Your task to perform on an android device: snooze an email in the gmail app Image 0: 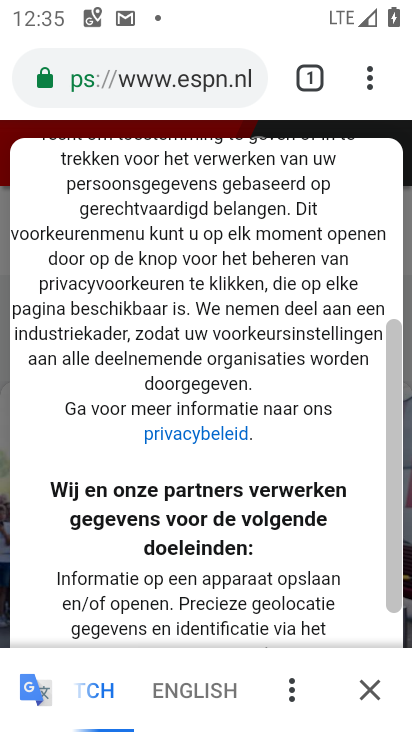
Step 0: press home button
Your task to perform on an android device: snooze an email in the gmail app Image 1: 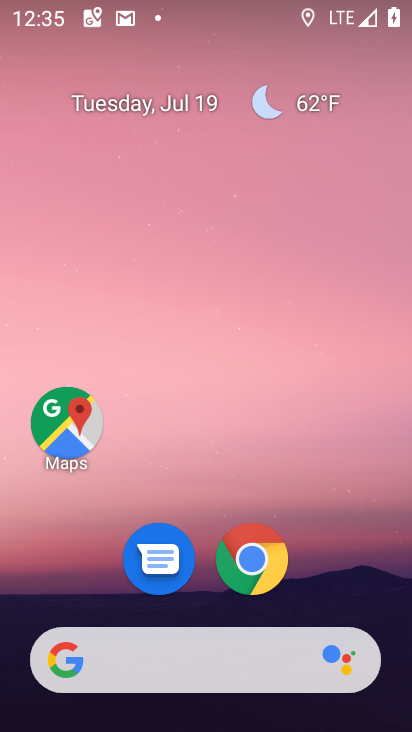
Step 1: drag from (299, 659) to (315, 102)
Your task to perform on an android device: snooze an email in the gmail app Image 2: 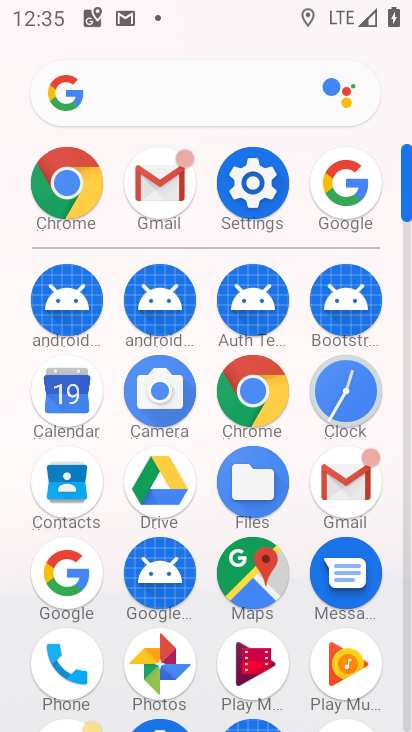
Step 2: click (352, 491)
Your task to perform on an android device: snooze an email in the gmail app Image 3: 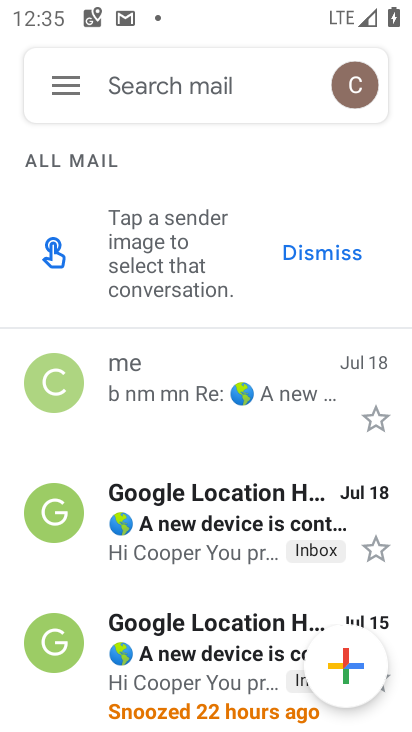
Step 3: drag from (176, 590) to (231, 341)
Your task to perform on an android device: snooze an email in the gmail app Image 4: 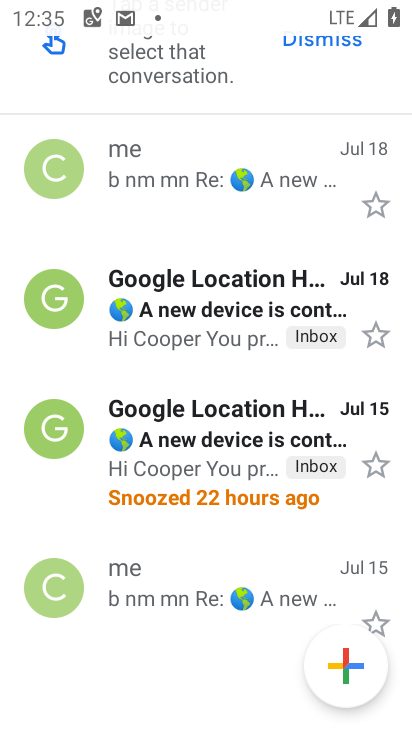
Step 4: drag from (92, 197) to (124, 622)
Your task to perform on an android device: snooze an email in the gmail app Image 5: 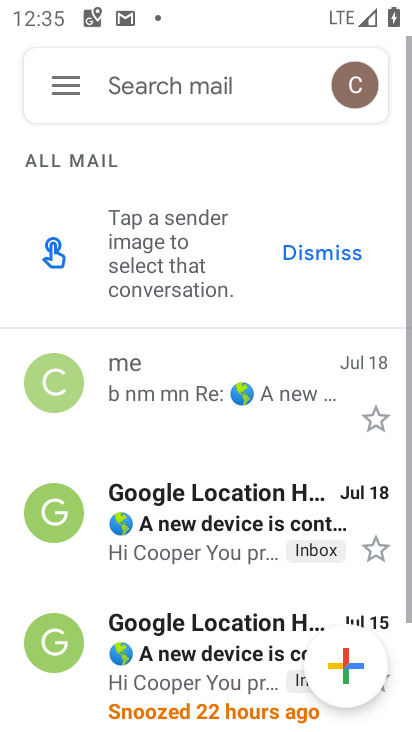
Step 5: click (59, 91)
Your task to perform on an android device: snooze an email in the gmail app Image 6: 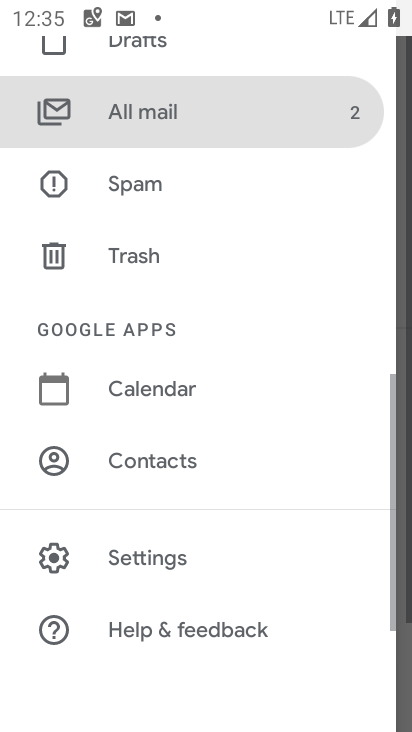
Step 6: drag from (135, 179) to (102, 721)
Your task to perform on an android device: snooze an email in the gmail app Image 7: 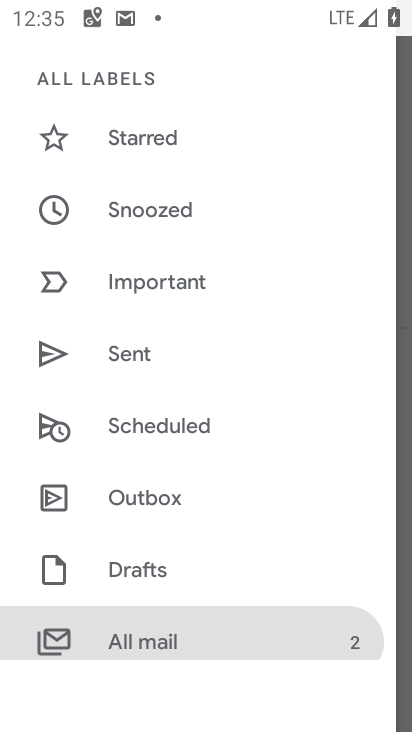
Step 7: click (156, 221)
Your task to perform on an android device: snooze an email in the gmail app Image 8: 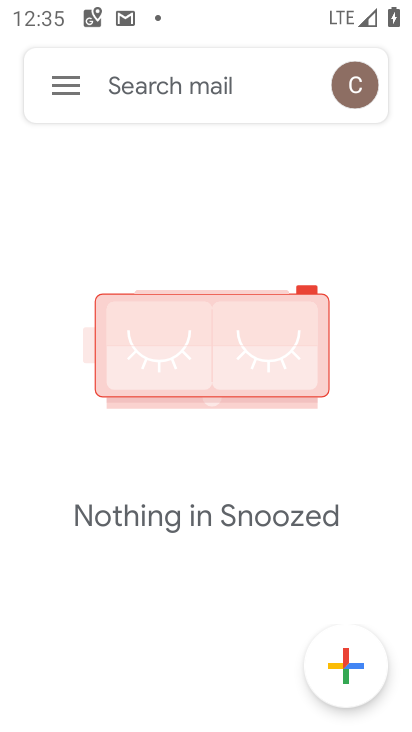
Step 8: task complete